Your task to perform on an android device: read, delete, or share a saved page in the chrome app Image 0: 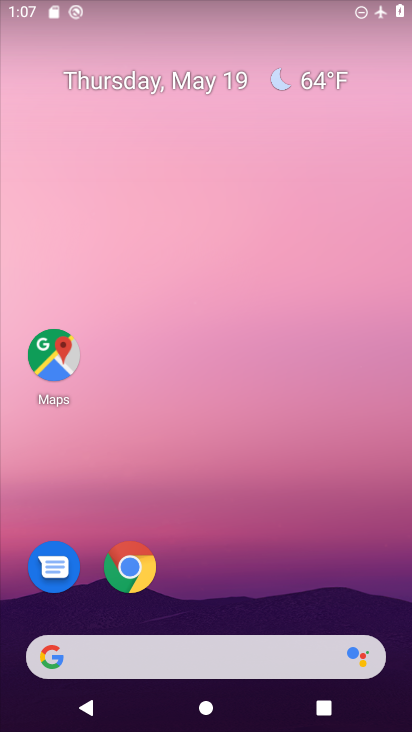
Step 0: click (117, 566)
Your task to perform on an android device: read, delete, or share a saved page in the chrome app Image 1: 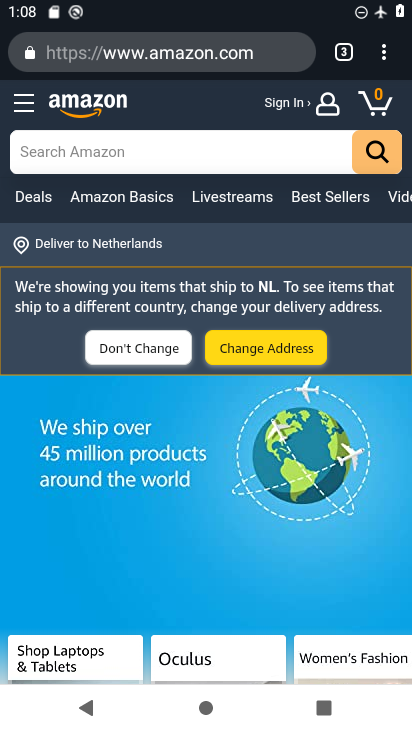
Step 1: task complete